Your task to perform on an android device: find photos in the google photos app Image 0: 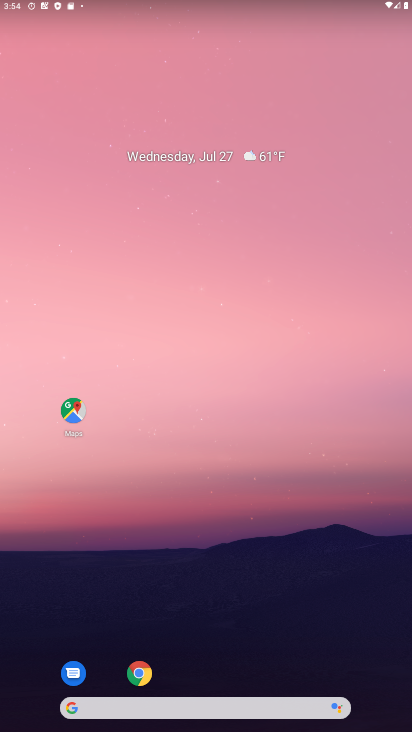
Step 0: drag from (39, 687) to (214, 159)
Your task to perform on an android device: find photos in the google photos app Image 1: 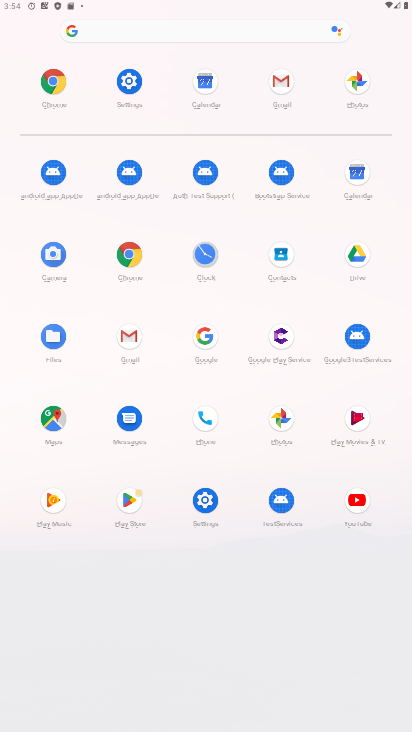
Step 1: click (264, 391)
Your task to perform on an android device: find photos in the google photos app Image 2: 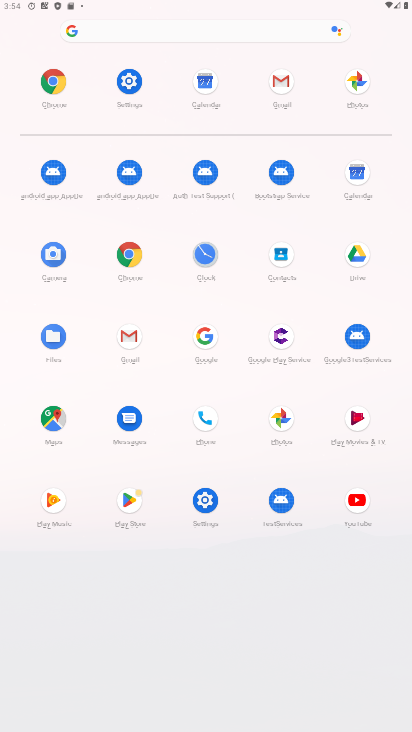
Step 2: click (284, 421)
Your task to perform on an android device: find photos in the google photos app Image 3: 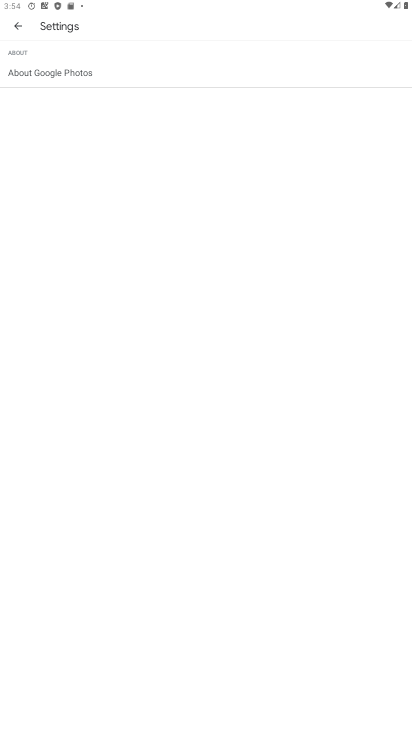
Step 3: click (17, 17)
Your task to perform on an android device: find photos in the google photos app Image 4: 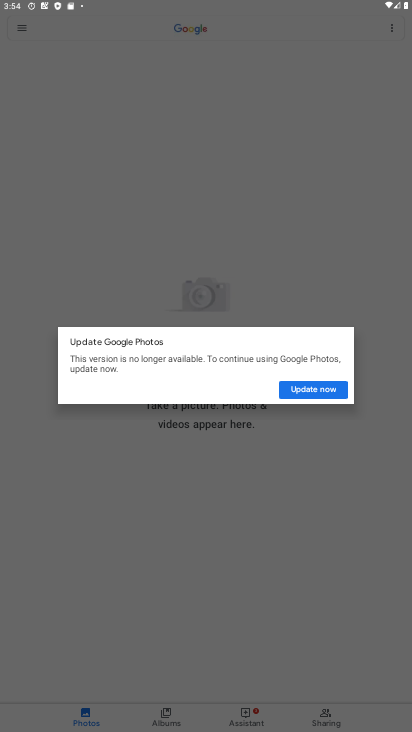
Step 4: click (298, 388)
Your task to perform on an android device: find photos in the google photos app Image 5: 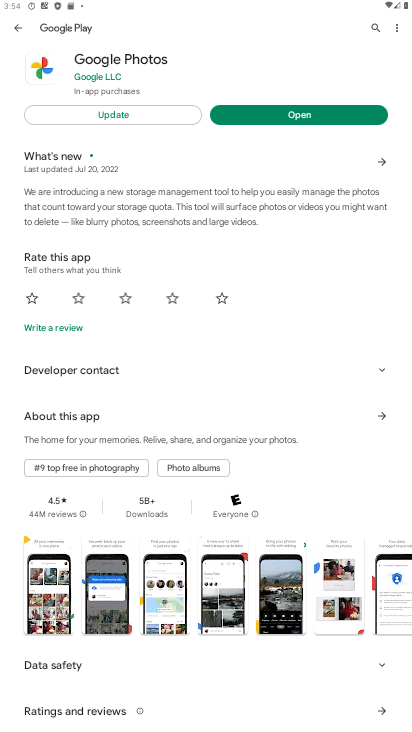
Step 5: click (268, 108)
Your task to perform on an android device: find photos in the google photos app Image 6: 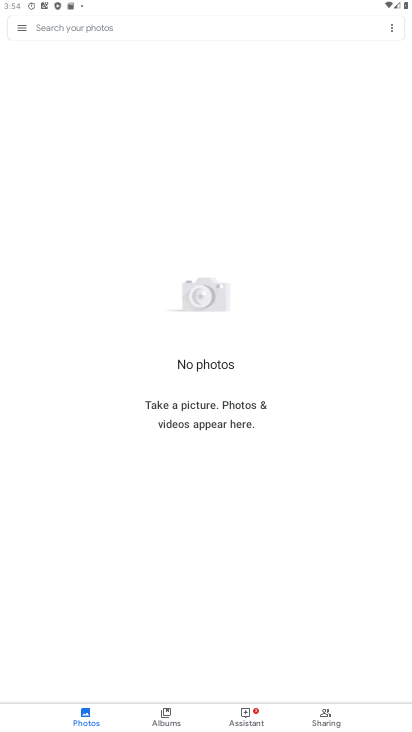
Step 6: task complete